Your task to perform on an android device: Open Google Image 0: 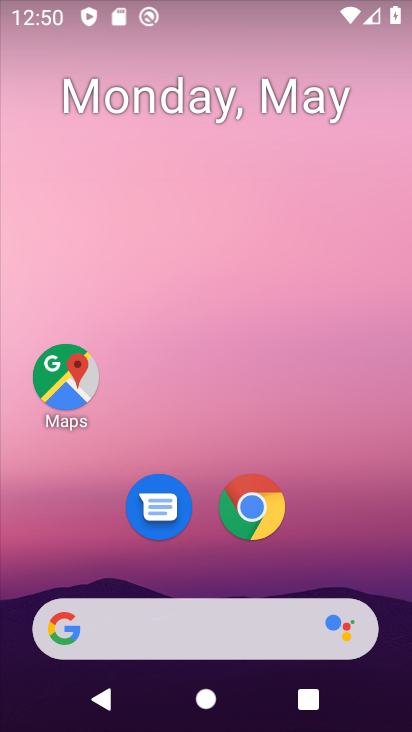
Step 0: drag from (354, 530) to (312, 27)
Your task to perform on an android device: Open Google Image 1: 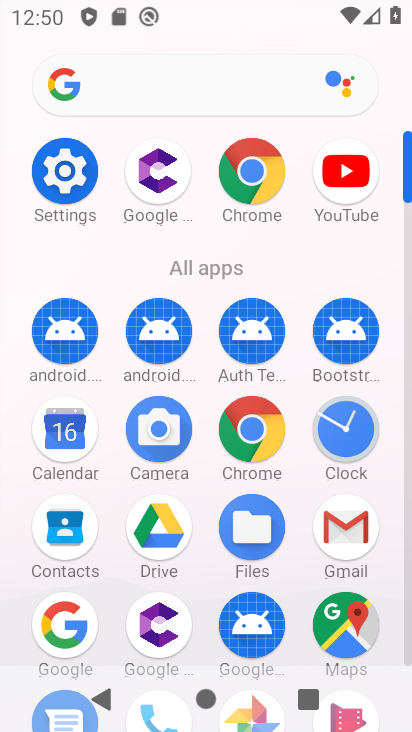
Step 1: click (60, 640)
Your task to perform on an android device: Open Google Image 2: 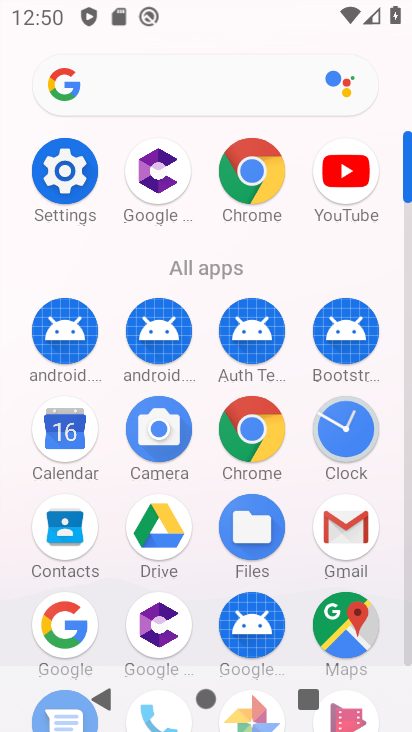
Step 2: click (60, 640)
Your task to perform on an android device: Open Google Image 3: 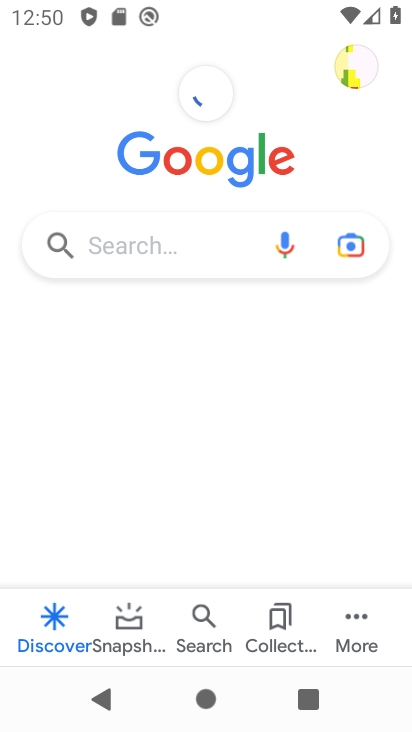
Step 3: task complete